Your task to perform on an android device: Open network settings Image 0: 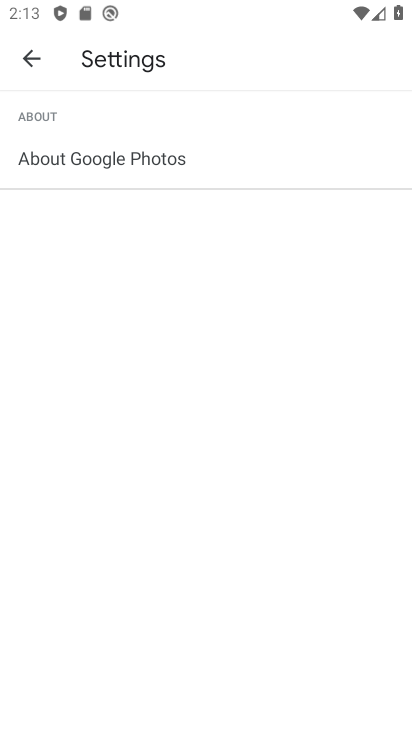
Step 0: click (41, 58)
Your task to perform on an android device: Open network settings Image 1: 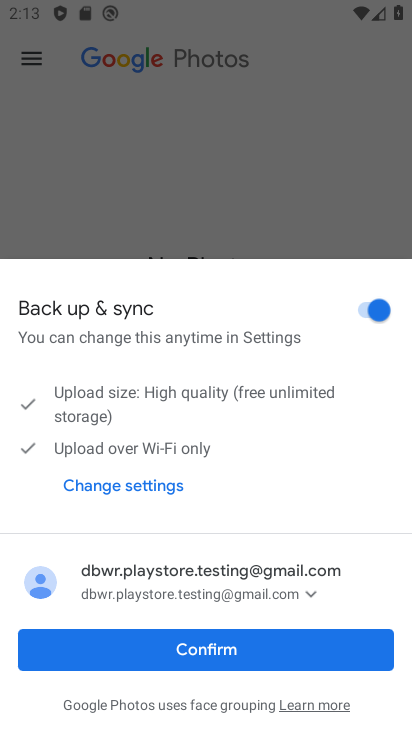
Step 1: click (212, 641)
Your task to perform on an android device: Open network settings Image 2: 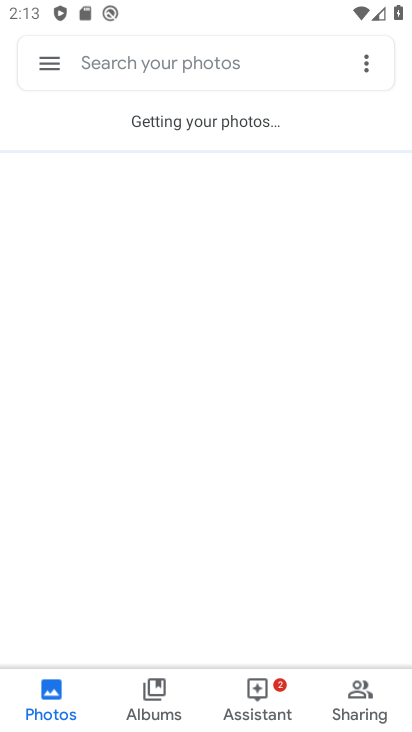
Step 2: press back button
Your task to perform on an android device: Open network settings Image 3: 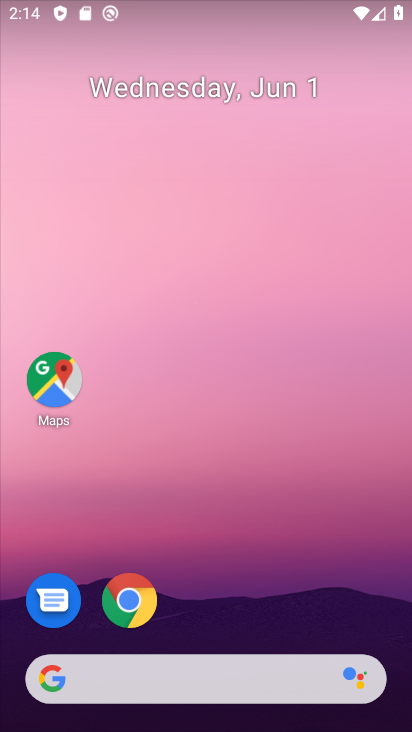
Step 3: drag from (238, 696) to (158, 150)
Your task to perform on an android device: Open network settings Image 4: 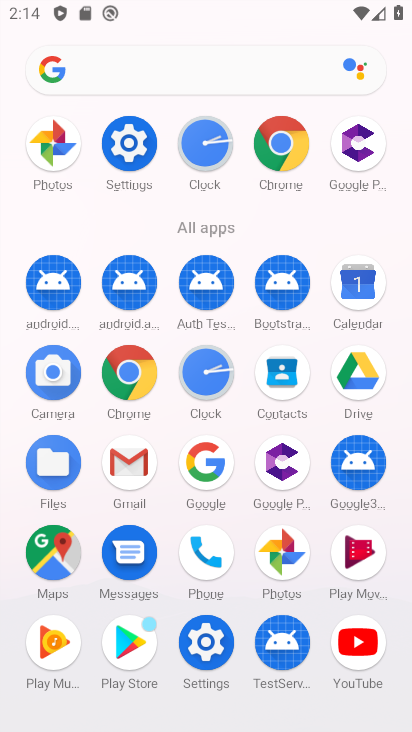
Step 4: click (122, 148)
Your task to perform on an android device: Open network settings Image 5: 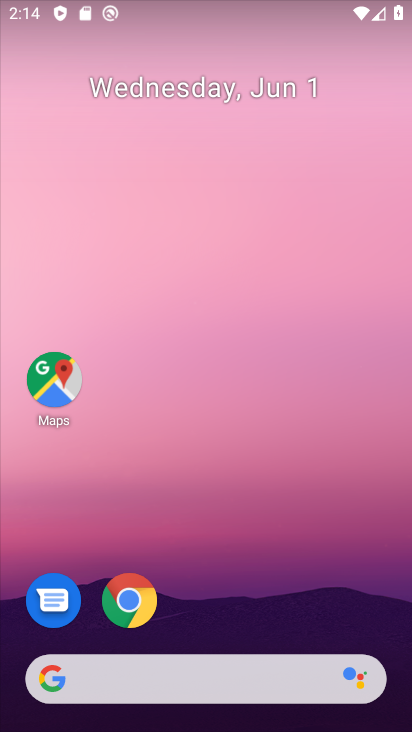
Step 5: drag from (221, 686) to (64, 40)
Your task to perform on an android device: Open network settings Image 6: 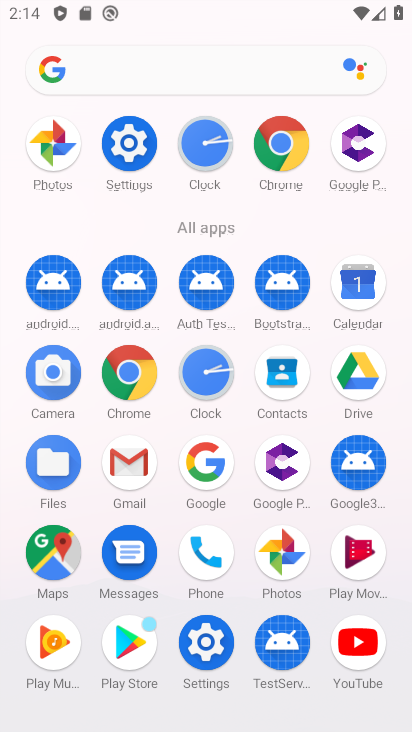
Step 6: drag from (231, 580) to (227, 71)
Your task to perform on an android device: Open network settings Image 7: 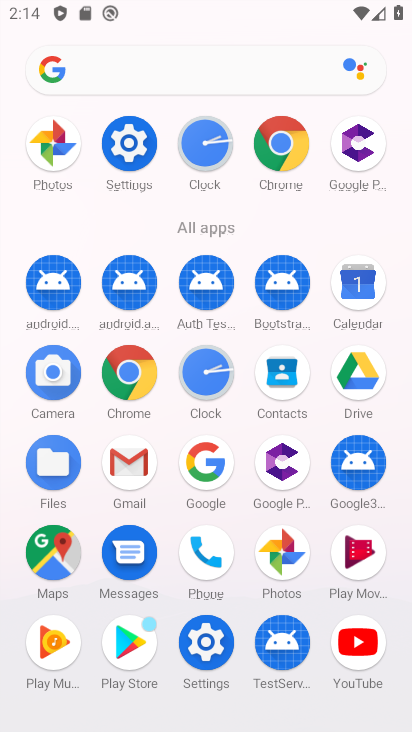
Step 7: click (132, 145)
Your task to perform on an android device: Open network settings Image 8: 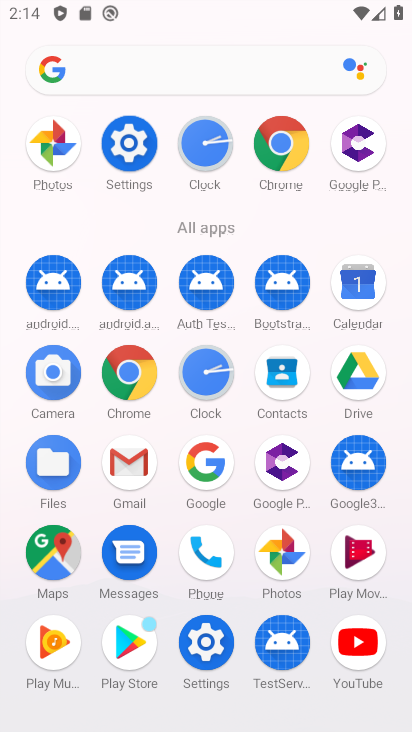
Step 8: click (136, 146)
Your task to perform on an android device: Open network settings Image 9: 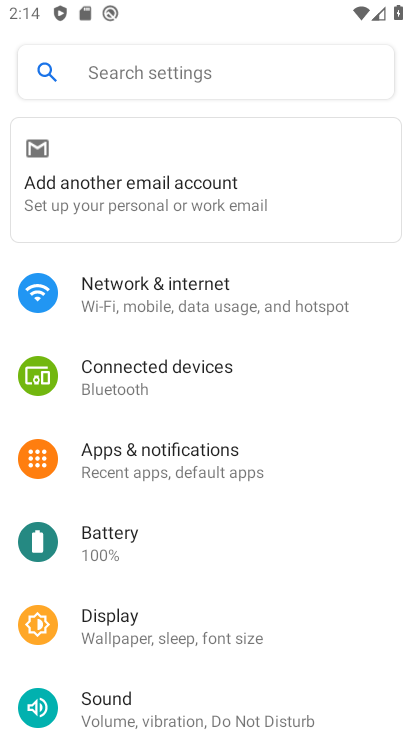
Step 9: drag from (86, 622) to (110, 300)
Your task to perform on an android device: Open network settings Image 10: 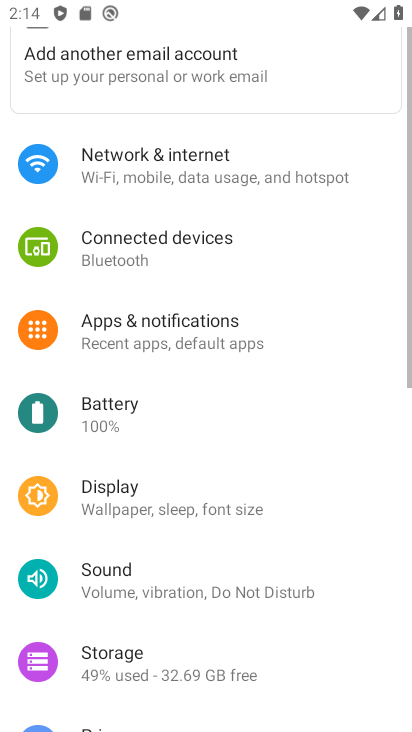
Step 10: drag from (173, 535) to (139, 291)
Your task to perform on an android device: Open network settings Image 11: 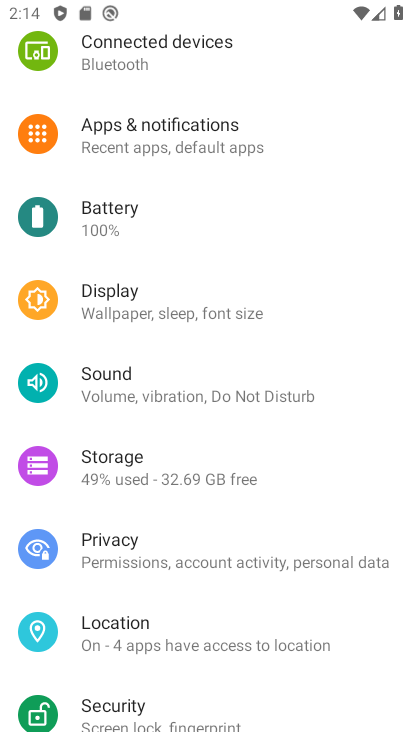
Step 11: drag from (146, 102) to (146, 392)
Your task to perform on an android device: Open network settings Image 12: 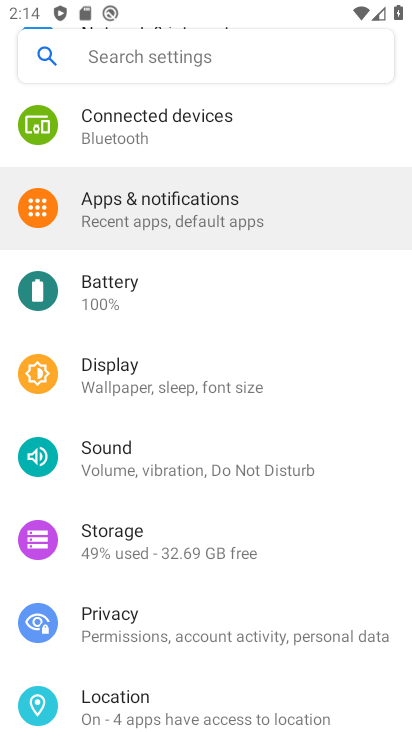
Step 12: drag from (131, 229) to (177, 366)
Your task to perform on an android device: Open network settings Image 13: 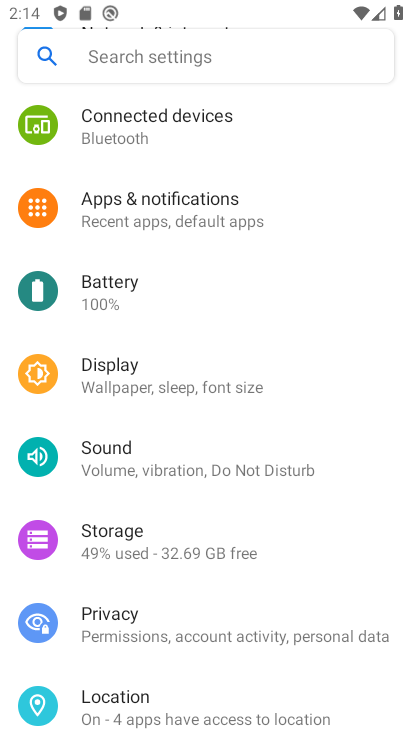
Step 13: drag from (198, 228) to (286, 511)
Your task to perform on an android device: Open network settings Image 14: 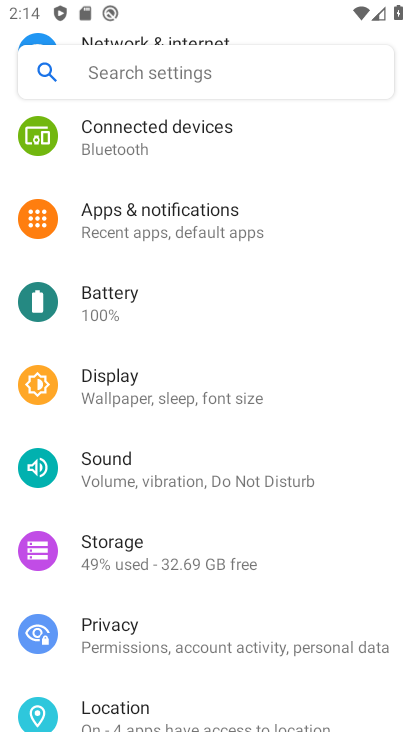
Step 14: drag from (163, 183) to (203, 396)
Your task to perform on an android device: Open network settings Image 15: 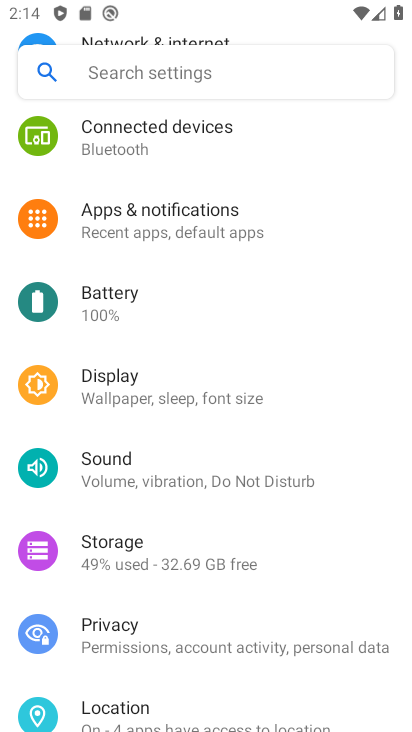
Step 15: drag from (163, 390) to (187, 513)
Your task to perform on an android device: Open network settings Image 16: 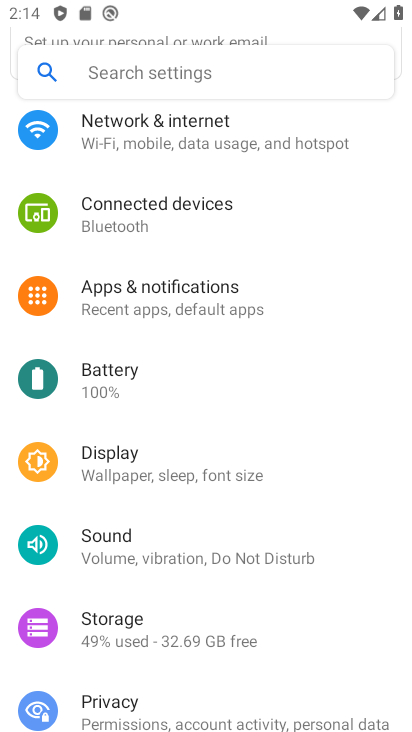
Step 16: click (148, 110)
Your task to perform on an android device: Open network settings Image 17: 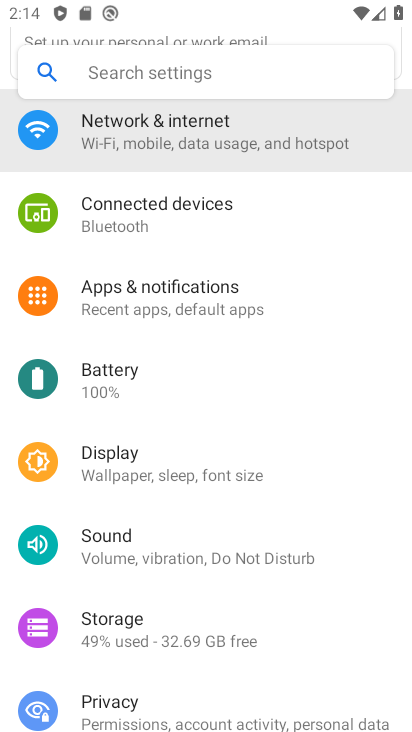
Step 17: click (145, 124)
Your task to perform on an android device: Open network settings Image 18: 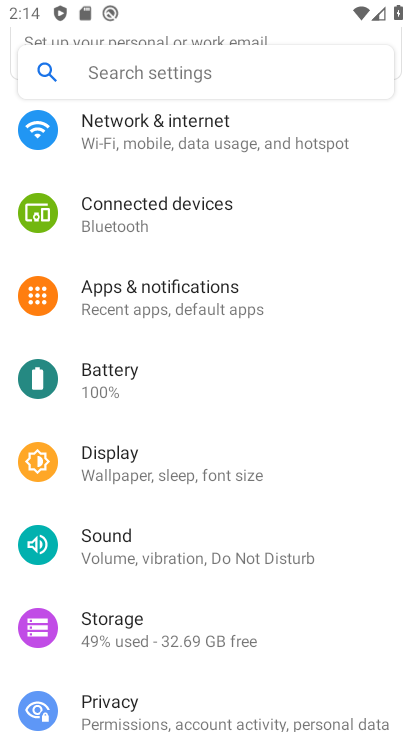
Step 18: click (145, 125)
Your task to perform on an android device: Open network settings Image 19: 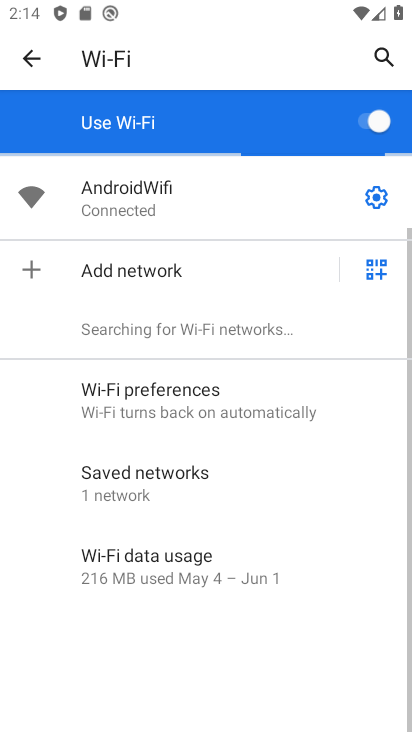
Step 19: click (34, 59)
Your task to perform on an android device: Open network settings Image 20: 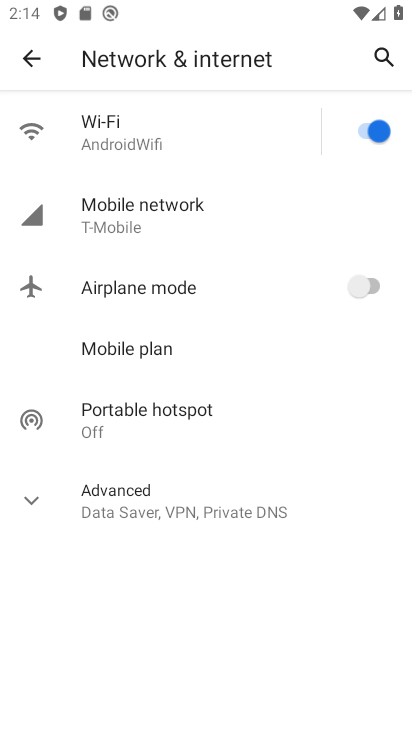
Step 20: task complete